Your task to perform on an android device: toggle data saver in the chrome app Image 0: 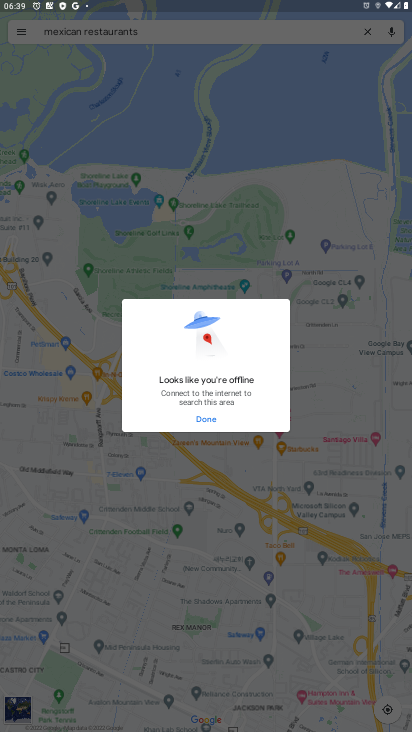
Step 0: press home button
Your task to perform on an android device: toggle data saver in the chrome app Image 1: 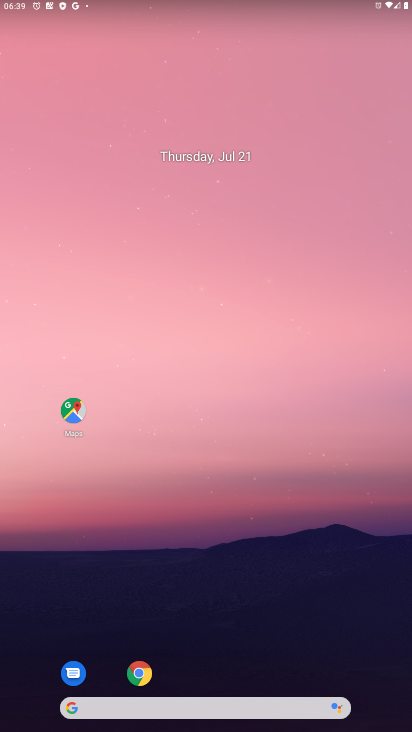
Step 1: click (142, 668)
Your task to perform on an android device: toggle data saver in the chrome app Image 2: 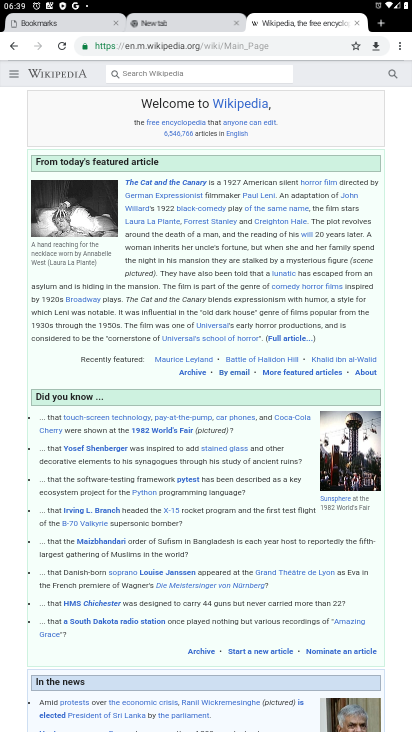
Step 2: click (403, 47)
Your task to perform on an android device: toggle data saver in the chrome app Image 3: 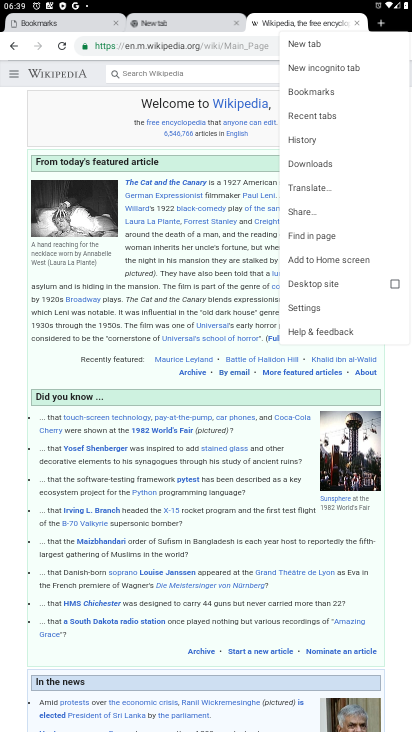
Step 3: click (305, 308)
Your task to perform on an android device: toggle data saver in the chrome app Image 4: 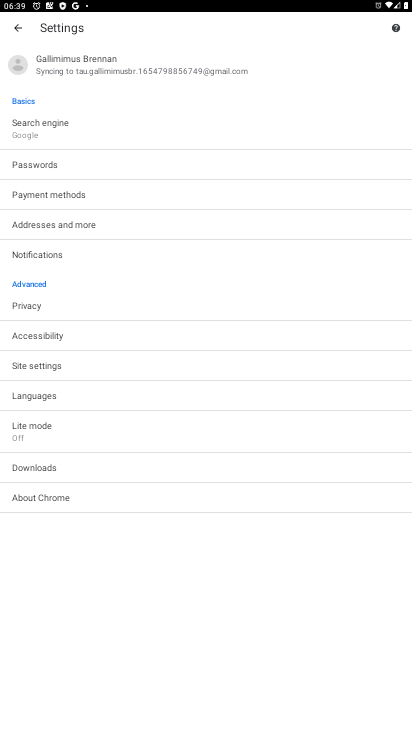
Step 4: click (76, 433)
Your task to perform on an android device: toggle data saver in the chrome app Image 5: 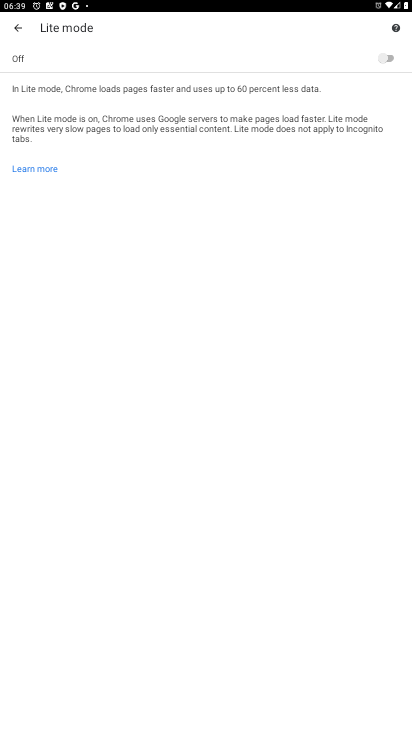
Step 5: click (386, 55)
Your task to perform on an android device: toggle data saver in the chrome app Image 6: 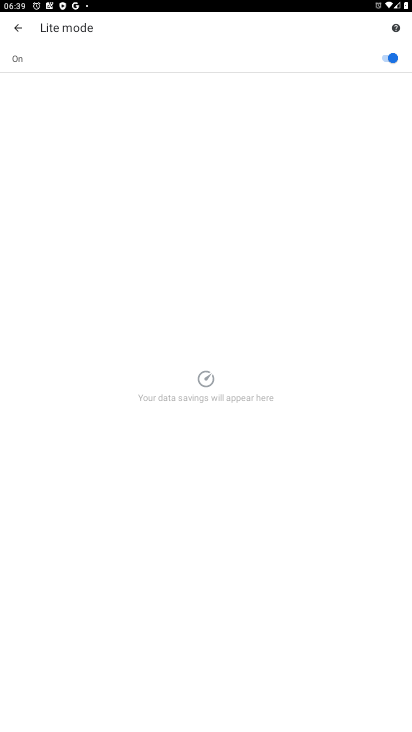
Step 6: task complete